Your task to perform on an android device: toggle airplane mode Image 0: 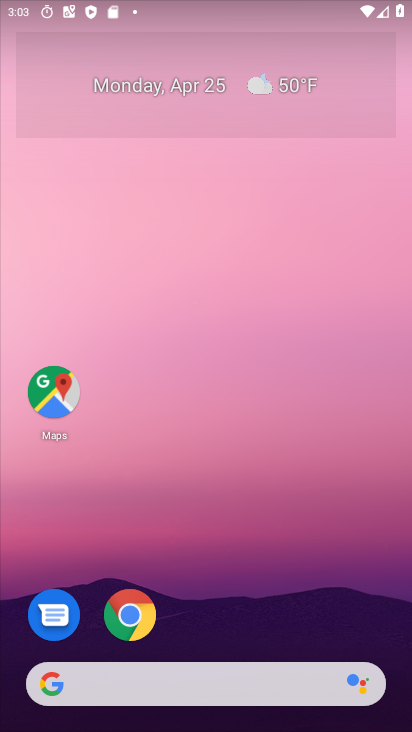
Step 0: drag from (219, 483) to (231, 168)
Your task to perform on an android device: toggle airplane mode Image 1: 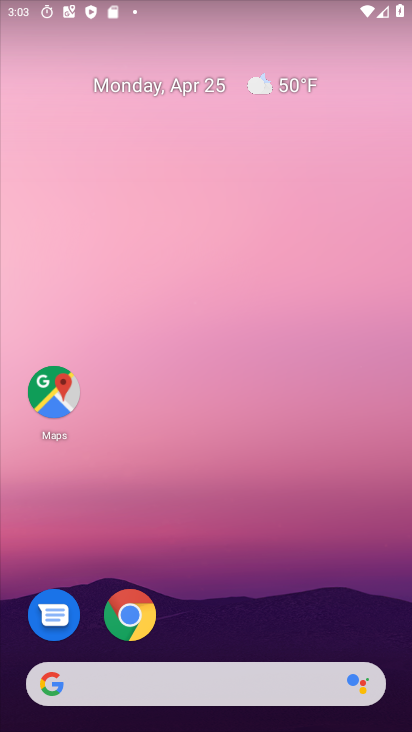
Step 1: drag from (232, 729) to (232, 52)
Your task to perform on an android device: toggle airplane mode Image 2: 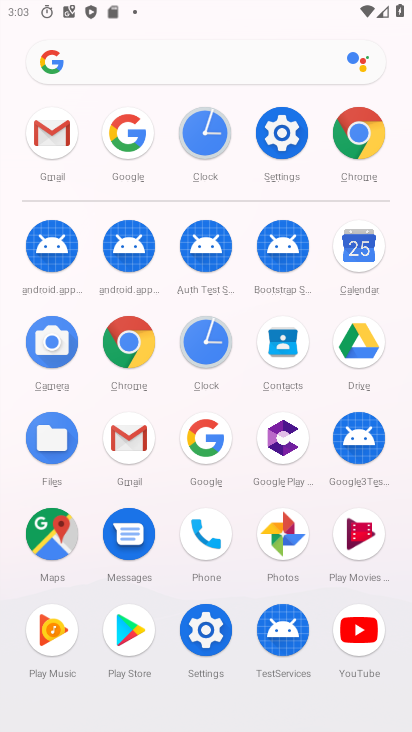
Step 2: click (281, 129)
Your task to perform on an android device: toggle airplane mode Image 3: 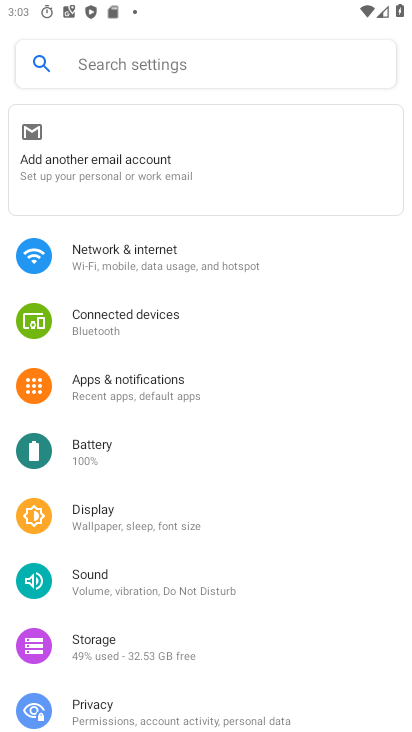
Step 3: click (123, 262)
Your task to perform on an android device: toggle airplane mode Image 4: 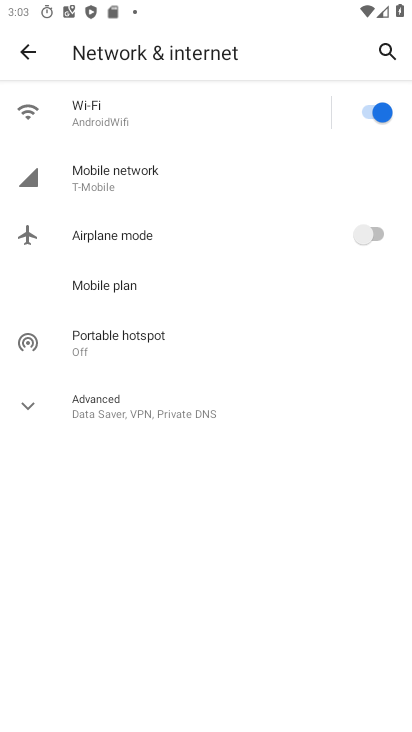
Step 4: click (372, 228)
Your task to perform on an android device: toggle airplane mode Image 5: 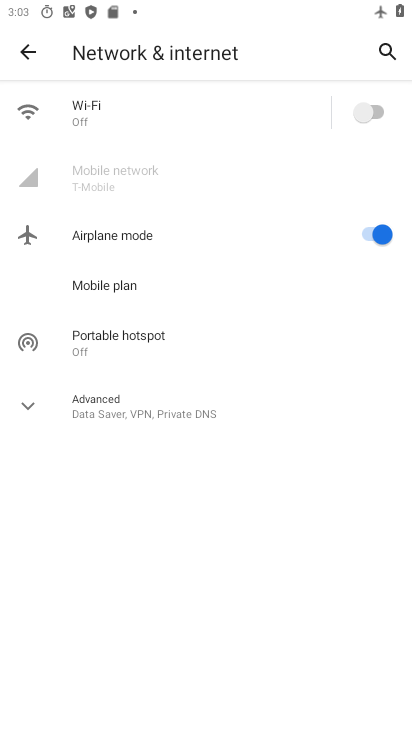
Step 5: task complete